Your task to perform on an android device: turn on notifications settings in the gmail app Image 0: 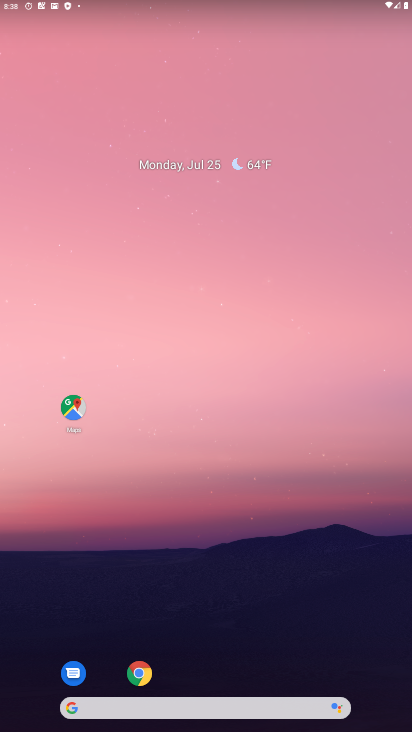
Step 0: drag from (186, 673) to (201, 62)
Your task to perform on an android device: turn on notifications settings in the gmail app Image 1: 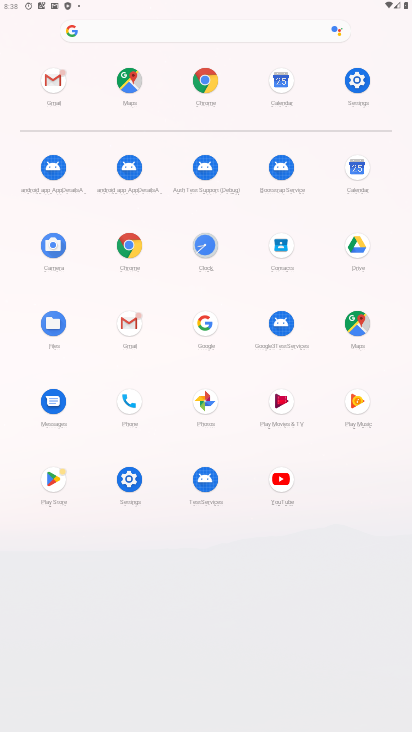
Step 1: click (124, 322)
Your task to perform on an android device: turn on notifications settings in the gmail app Image 2: 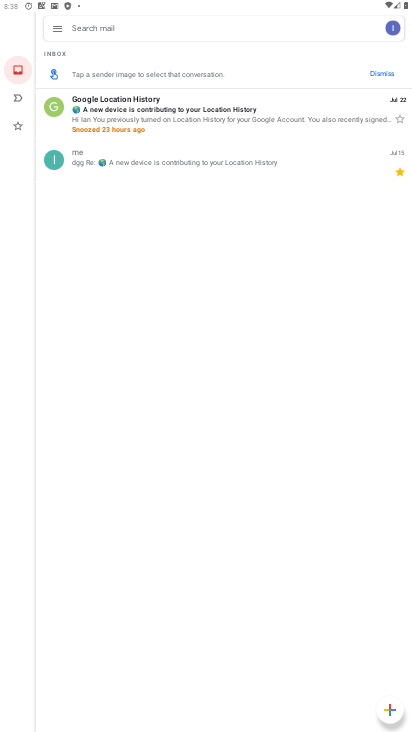
Step 2: click (61, 30)
Your task to perform on an android device: turn on notifications settings in the gmail app Image 3: 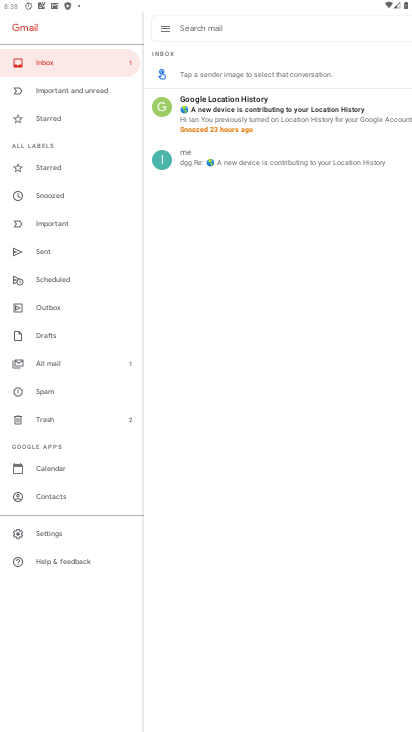
Step 3: click (38, 536)
Your task to perform on an android device: turn on notifications settings in the gmail app Image 4: 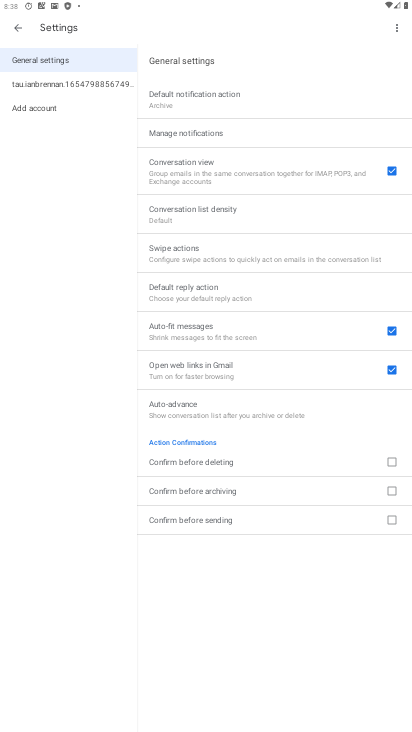
Step 4: click (80, 79)
Your task to perform on an android device: turn on notifications settings in the gmail app Image 5: 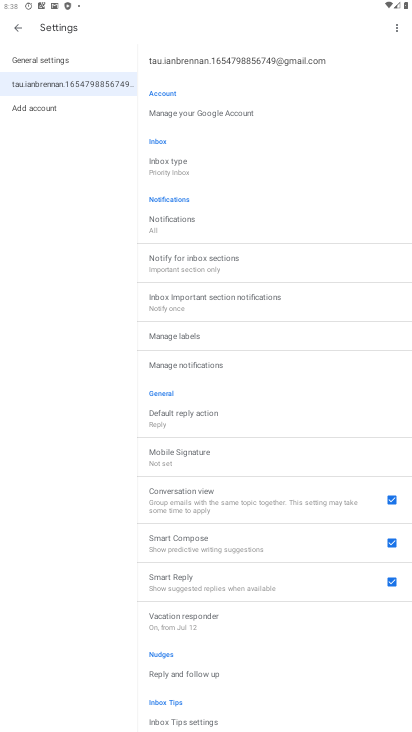
Step 5: click (208, 364)
Your task to perform on an android device: turn on notifications settings in the gmail app Image 6: 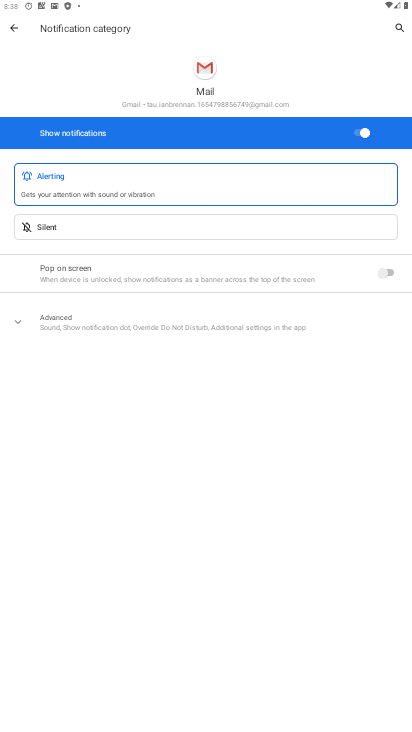
Step 6: click (363, 130)
Your task to perform on an android device: turn on notifications settings in the gmail app Image 7: 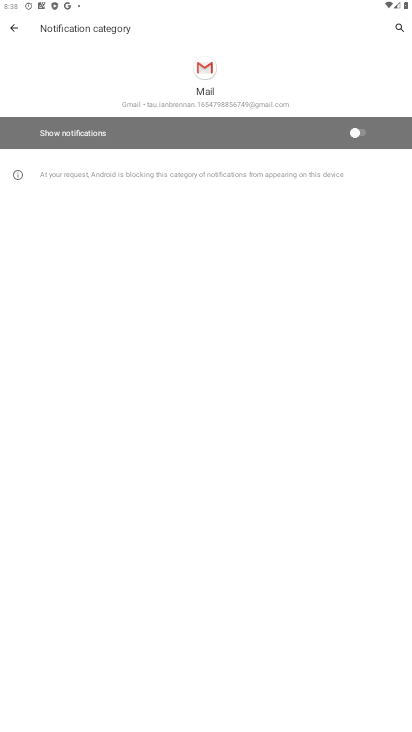
Step 7: click (362, 131)
Your task to perform on an android device: turn on notifications settings in the gmail app Image 8: 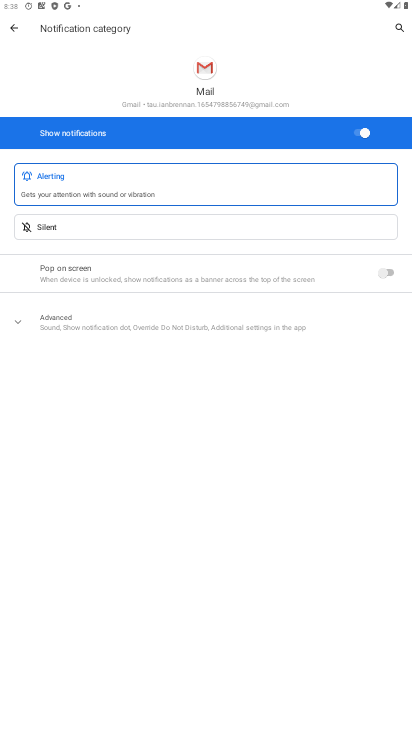
Step 8: task complete